Your task to perform on an android device: Go to Google Image 0: 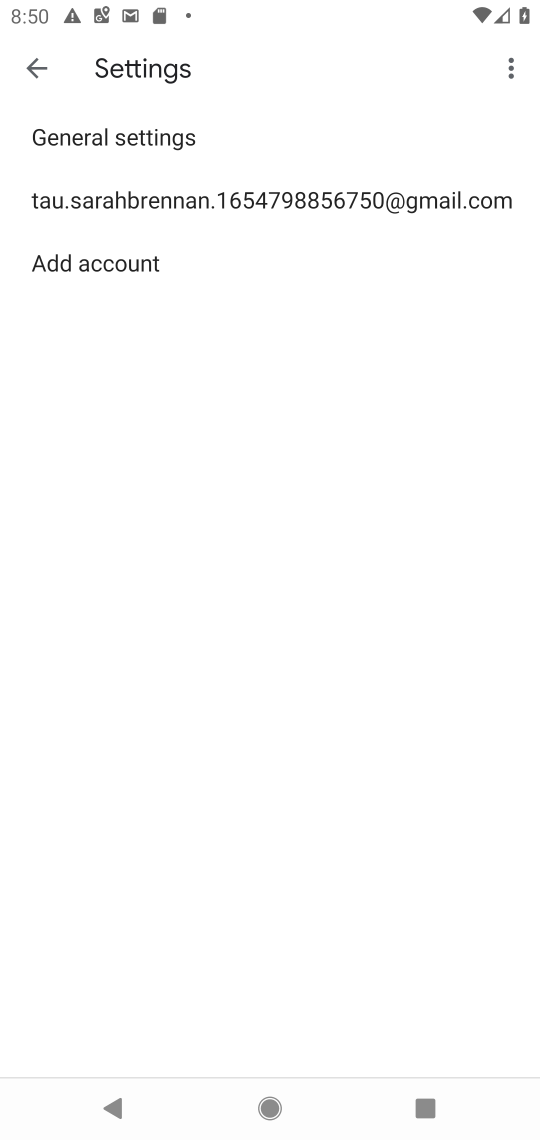
Step 0: press home button
Your task to perform on an android device: Go to Google Image 1: 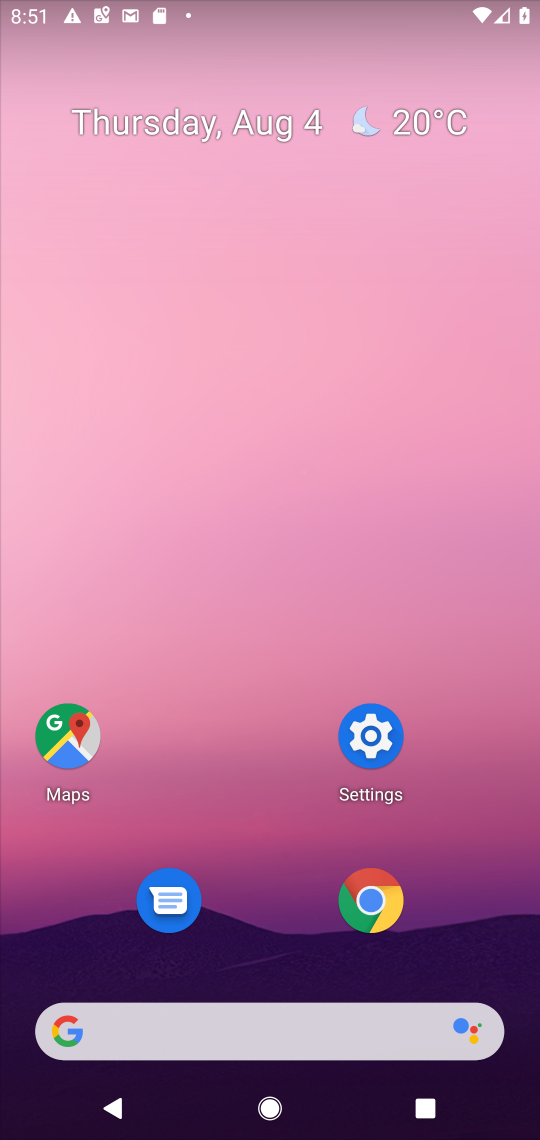
Step 1: drag from (207, 1036) to (473, 31)
Your task to perform on an android device: Go to Google Image 2: 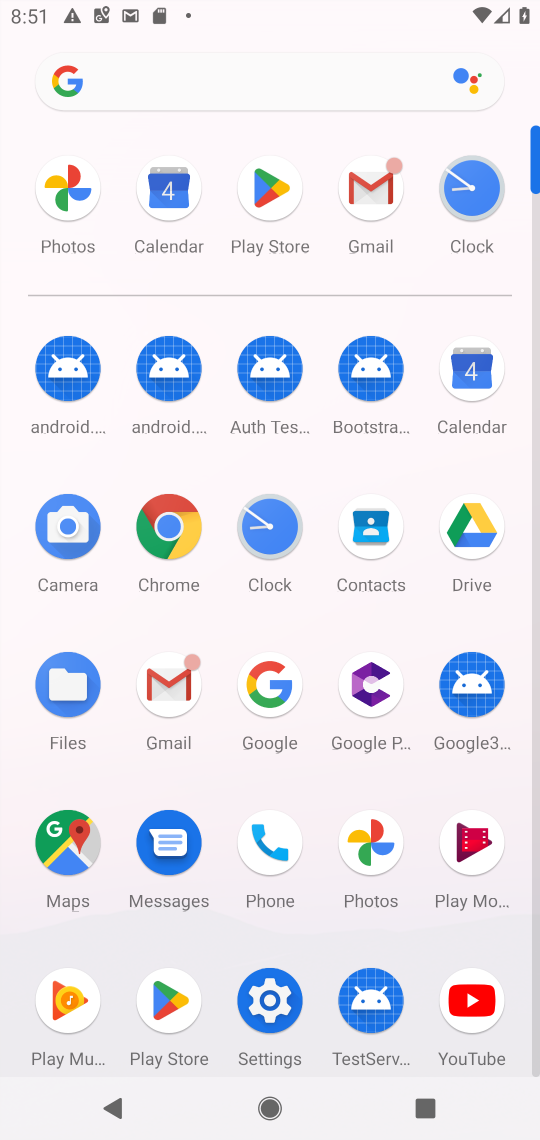
Step 2: click (269, 687)
Your task to perform on an android device: Go to Google Image 3: 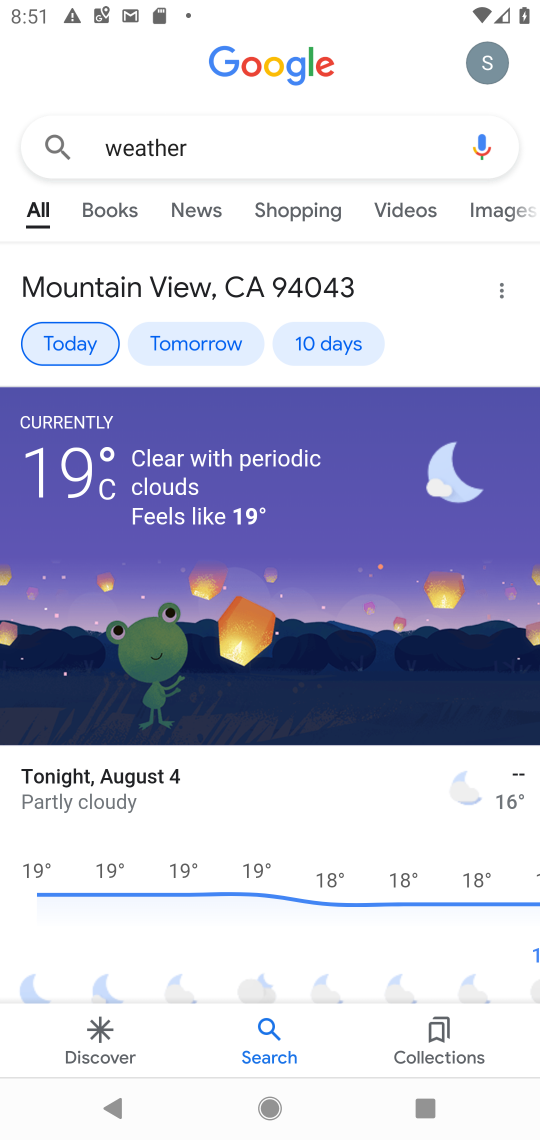
Step 3: task complete